Your task to perform on an android device: Go to privacy settings Image 0: 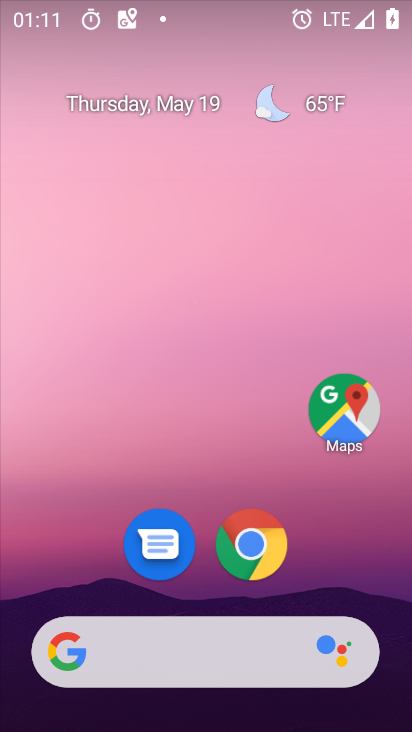
Step 0: drag from (341, 534) to (334, 225)
Your task to perform on an android device: Go to privacy settings Image 1: 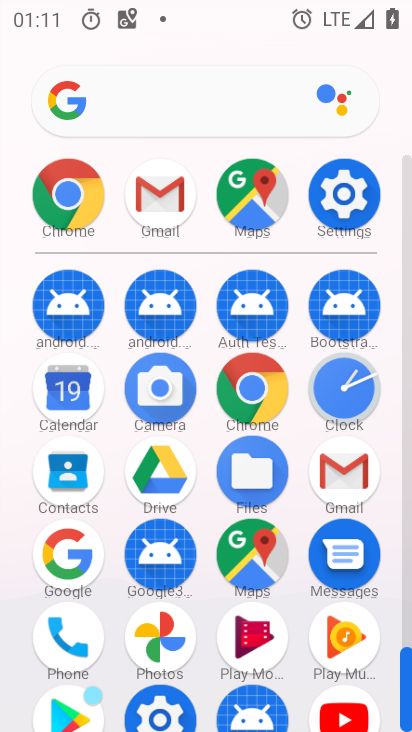
Step 1: click (334, 215)
Your task to perform on an android device: Go to privacy settings Image 2: 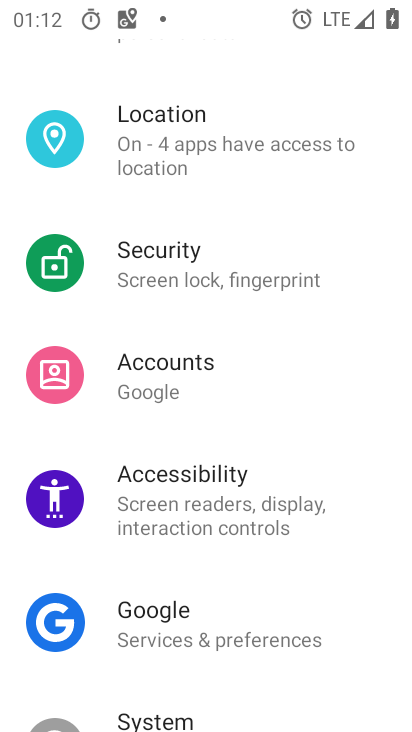
Step 2: drag from (356, 615) to (357, 502)
Your task to perform on an android device: Go to privacy settings Image 3: 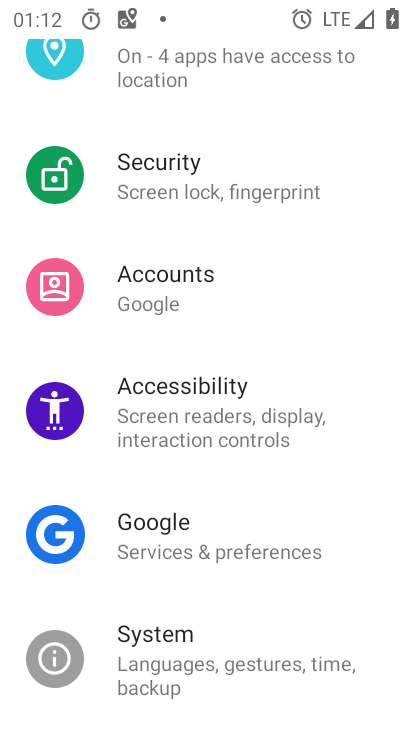
Step 3: drag from (349, 635) to (354, 446)
Your task to perform on an android device: Go to privacy settings Image 4: 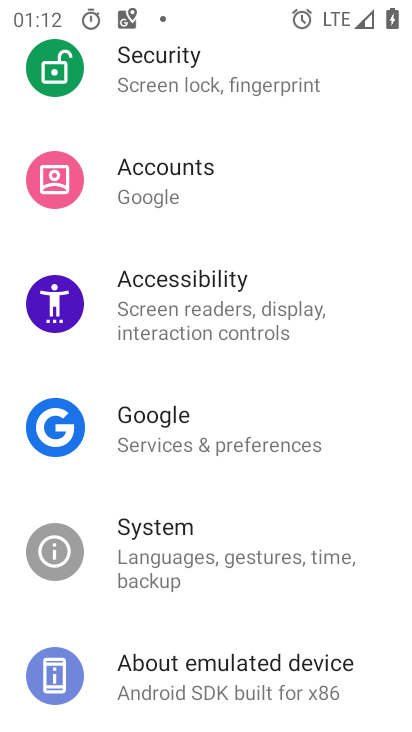
Step 4: drag from (351, 619) to (355, 441)
Your task to perform on an android device: Go to privacy settings Image 5: 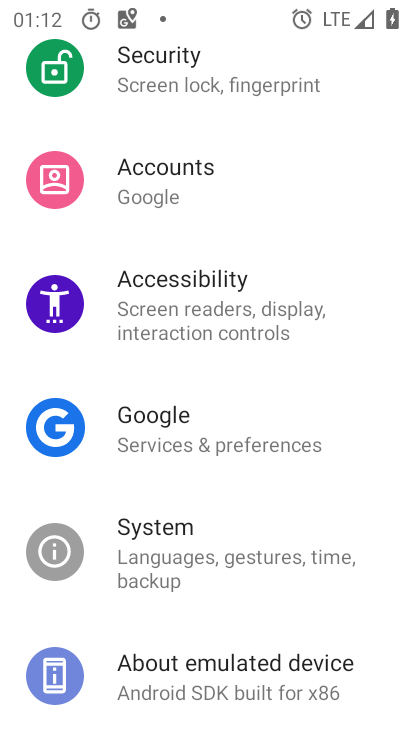
Step 5: drag from (368, 307) to (348, 483)
Your task to perform on an android device: Go to privacy settings Image 6: 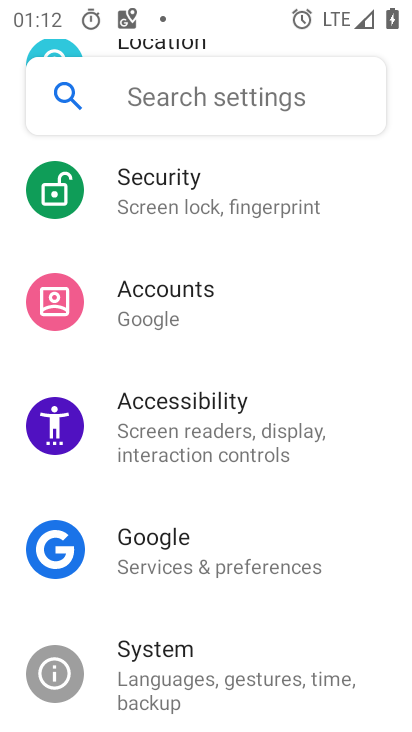
Step 6: drag from (351, 299) to (353, 502)
Your task to perform on an android device: Go to privacy settings Image 7: 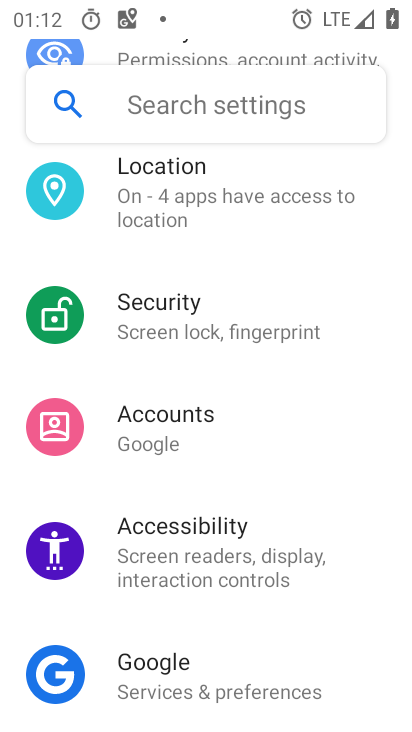
Step 7: drag from (334, 281) to (334, 444)
Your task to perform on an android device: Go to privacy settings Image 8: 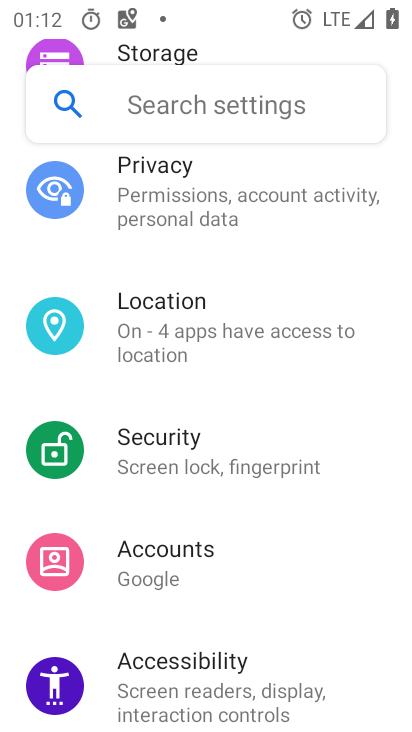
Step 8: drag from (332, 260) to (326, 365)
Your task to perform on an android device: Go to privacy settings Image 9: 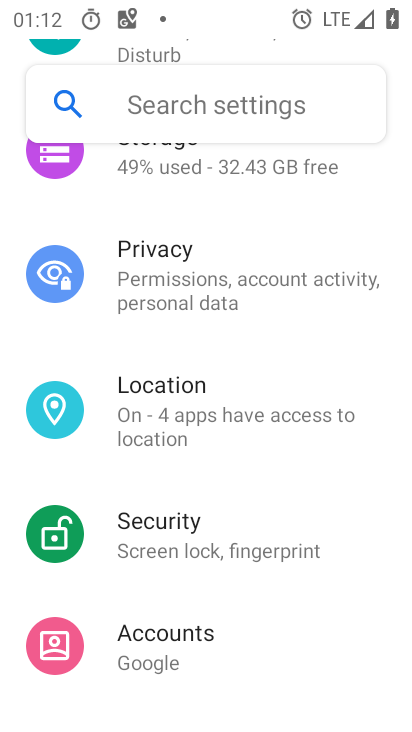
Step 9: drag from (328, 218) to (327, 358)
Your task to perform on an android device: Go to privacy settings Image 10: 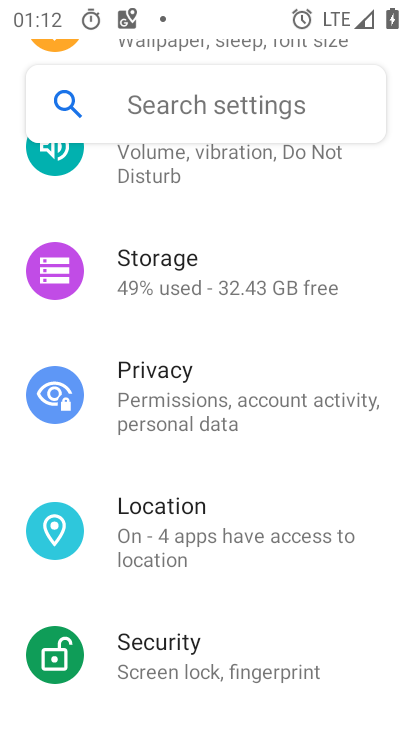
Step 10: drag from (334, 227) to (320, 369)
Your task to perform on an android device: Go to privacy settings Image 11: 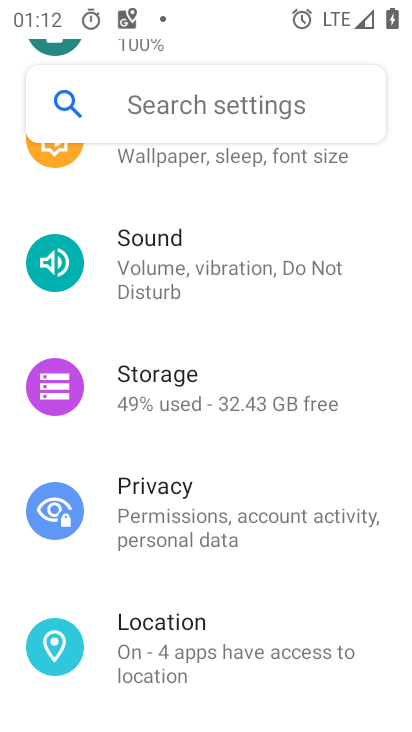
Step 11: drag from (320, 207) to (320, 332)
Your task to perform on an android device: Go to privacy settings Image 12: 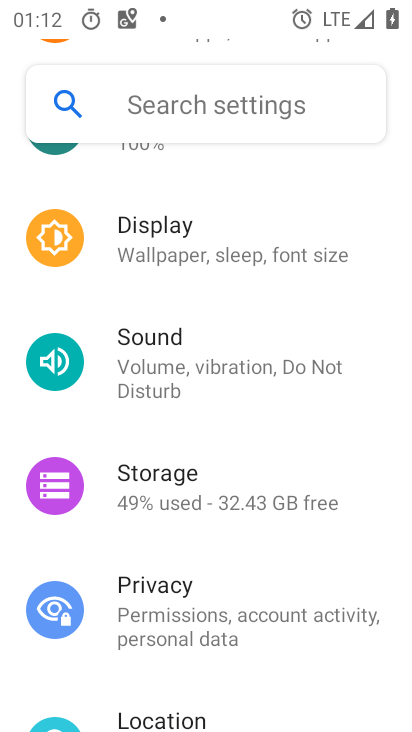
Step 12: drag from (312, 187) to (311, 301)
Your task to perform on an android device: Go to privacy settings Image 13: 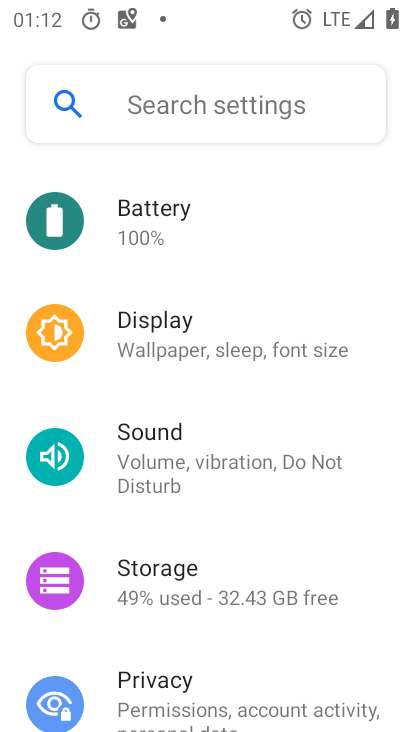
Step 13: drag from (316, 426) to (331, 251)
Your task to perform on an android device: Go to privacy settings Image 14: 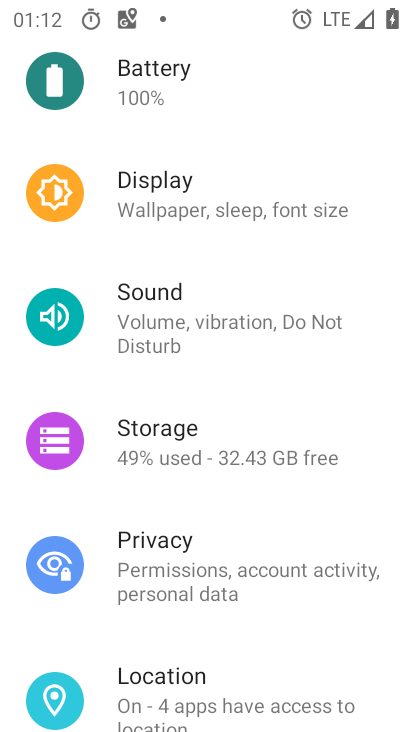
Step 14: drag from (334, 435) to (346, 286)
Your task to perform on an android device: Go to privacy settings Image 15: 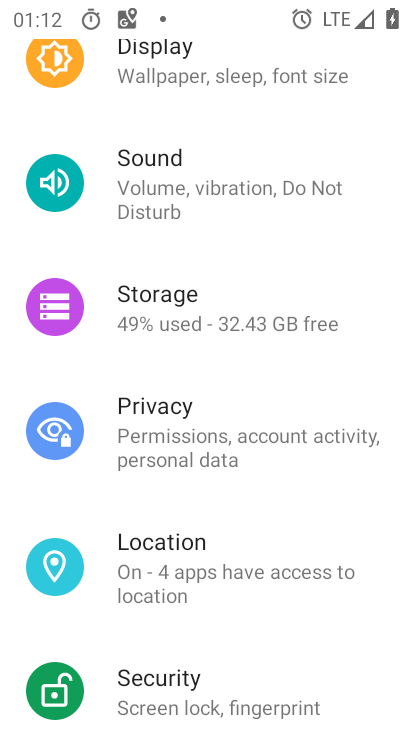
Step 15: drag from (345, 506) to (355, 371)
Your task to perform on an android device: Go to privacy settings Image 16: 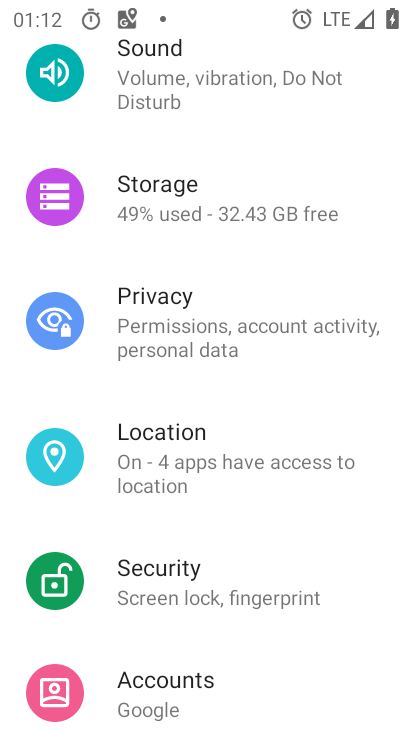
Step 16: click (268, 331)
Your task to perform on an android device: Go to privacy settings Image 17: 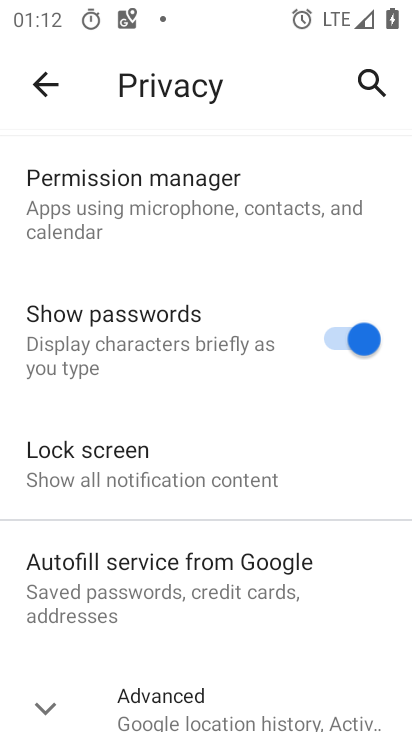
Step 17: click (183, 699)
Your task to perform on an android device: Go to privacy settings Image 18: 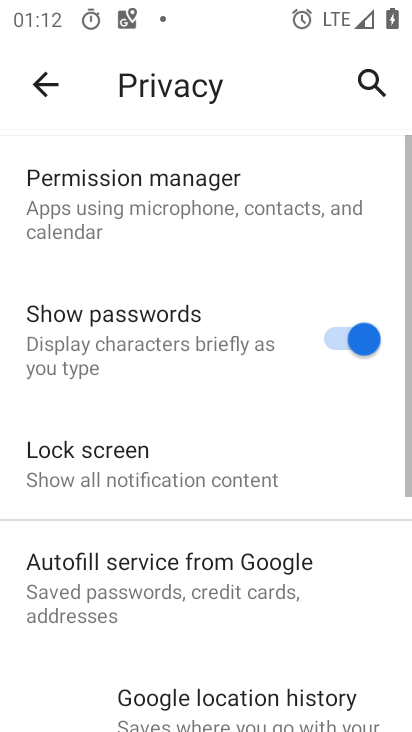
Step 18: task complete